Your task to perform on an android device: Add "corsair k70" to the cart on target Image 0: 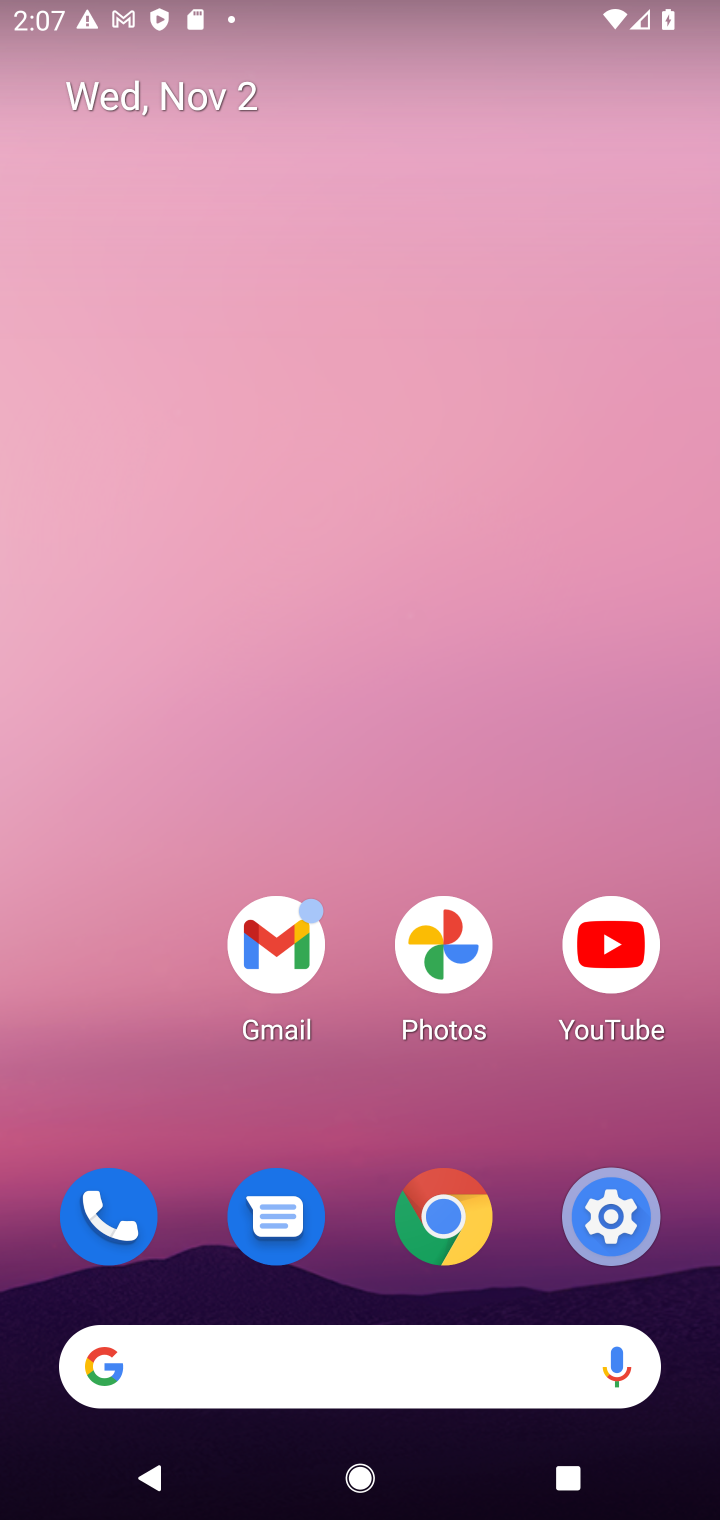
Step 0: click (416, 1201)
Your task to perform on an android device: Add "corsair k70" to the cart on target Image 1: 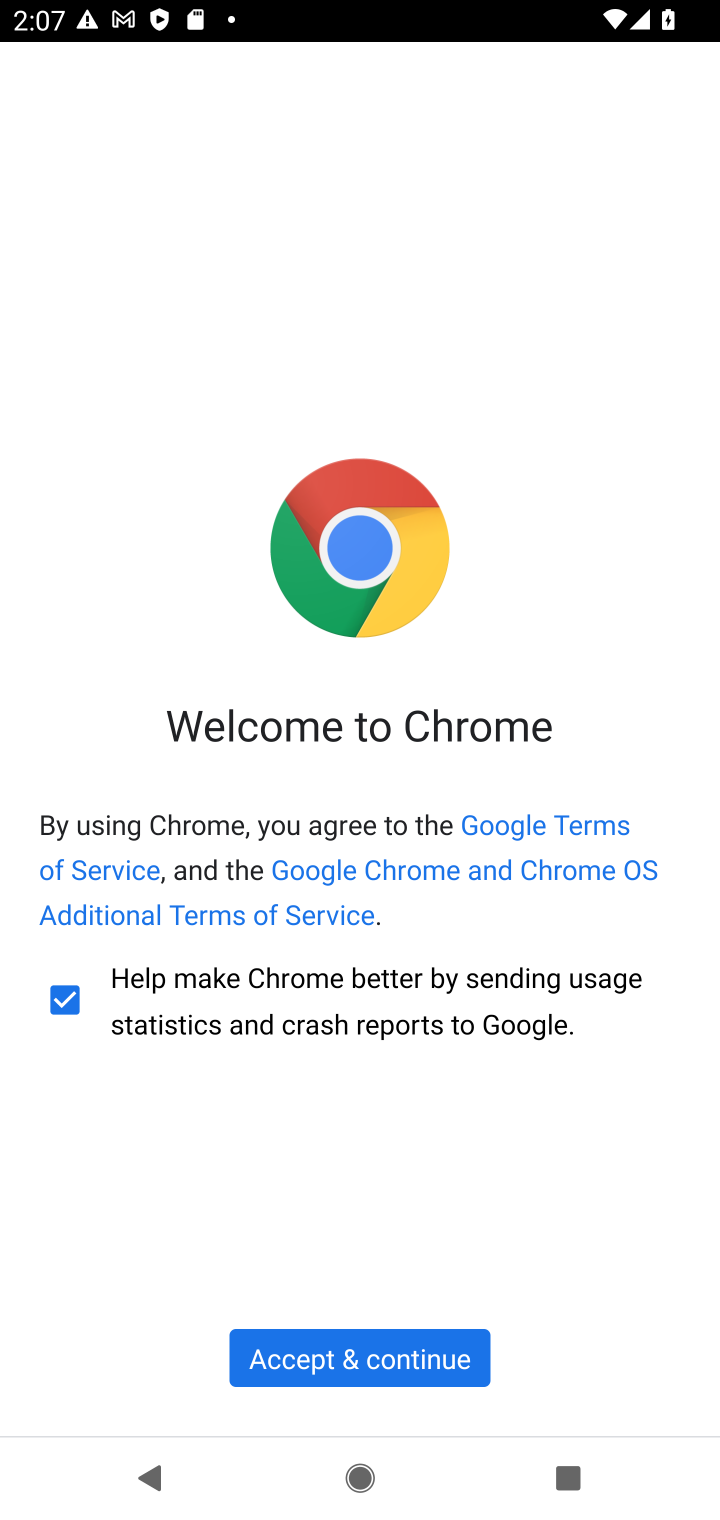
Step 1: click (335, 1345)
Your task to perform on an android device: Add "corsair k70" to the cart on target Image 2: 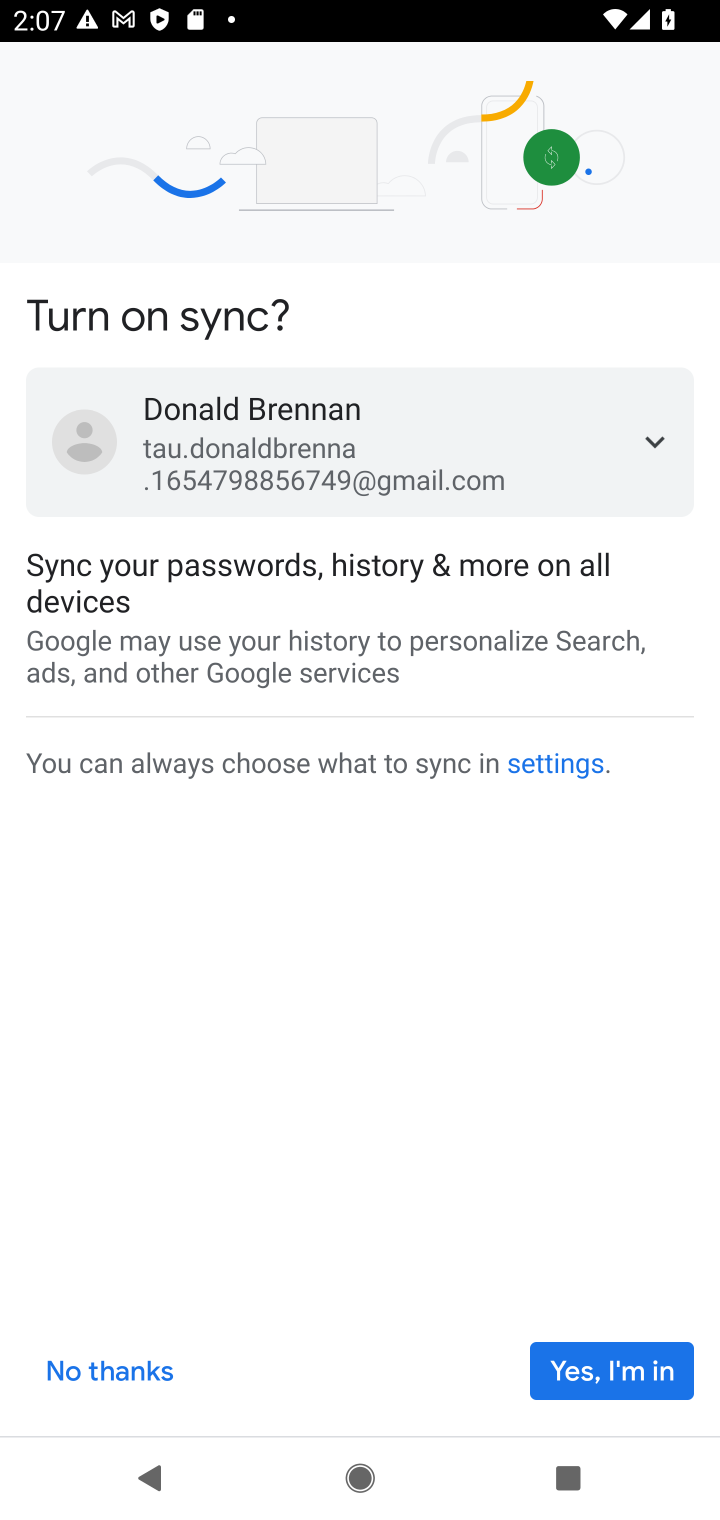
Step 2: click (592, 1369)
Your task to perform on an android device: Add "corsair k70" to the cart on target Image 3: 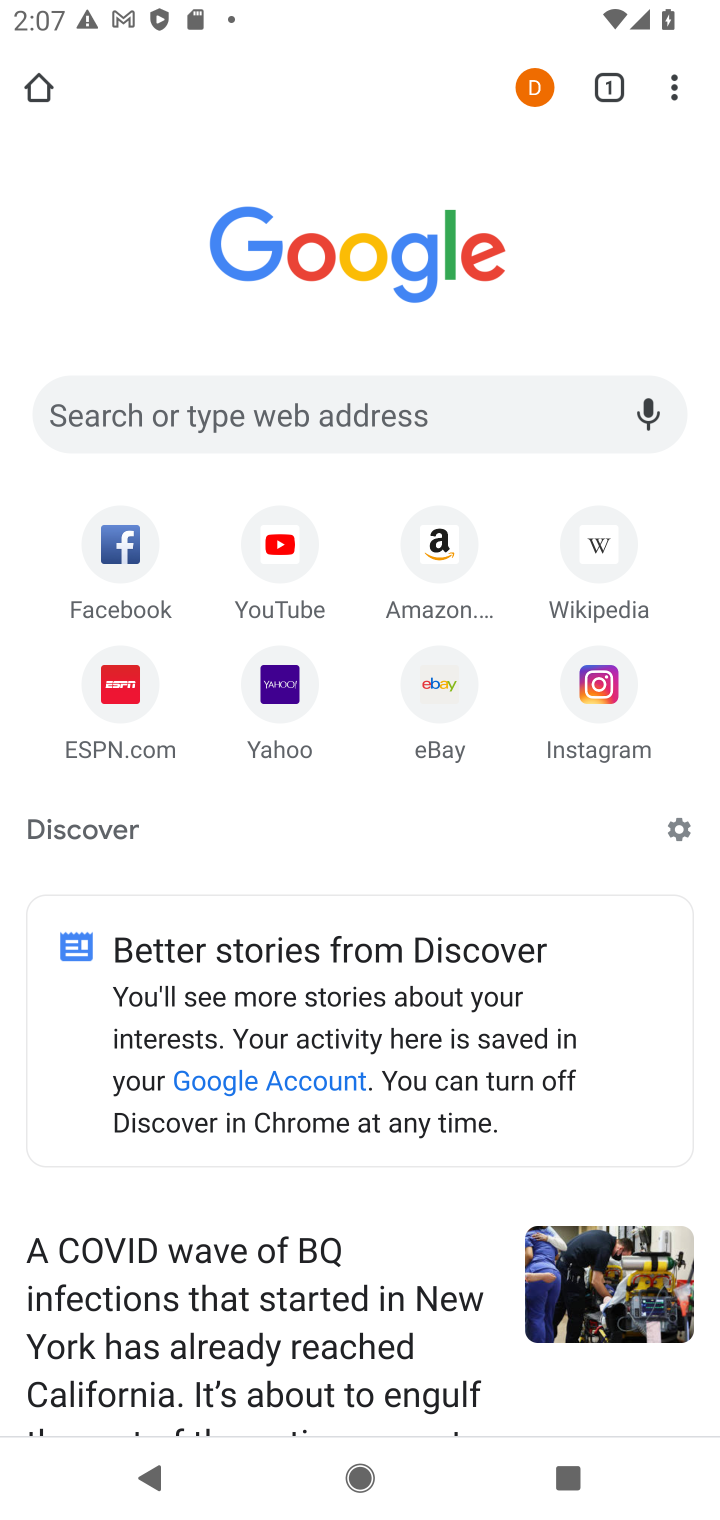
Step 3: click (253, 406)
Your task to perform on an android device: Add "corsair k70" to the cart on target Image 4: 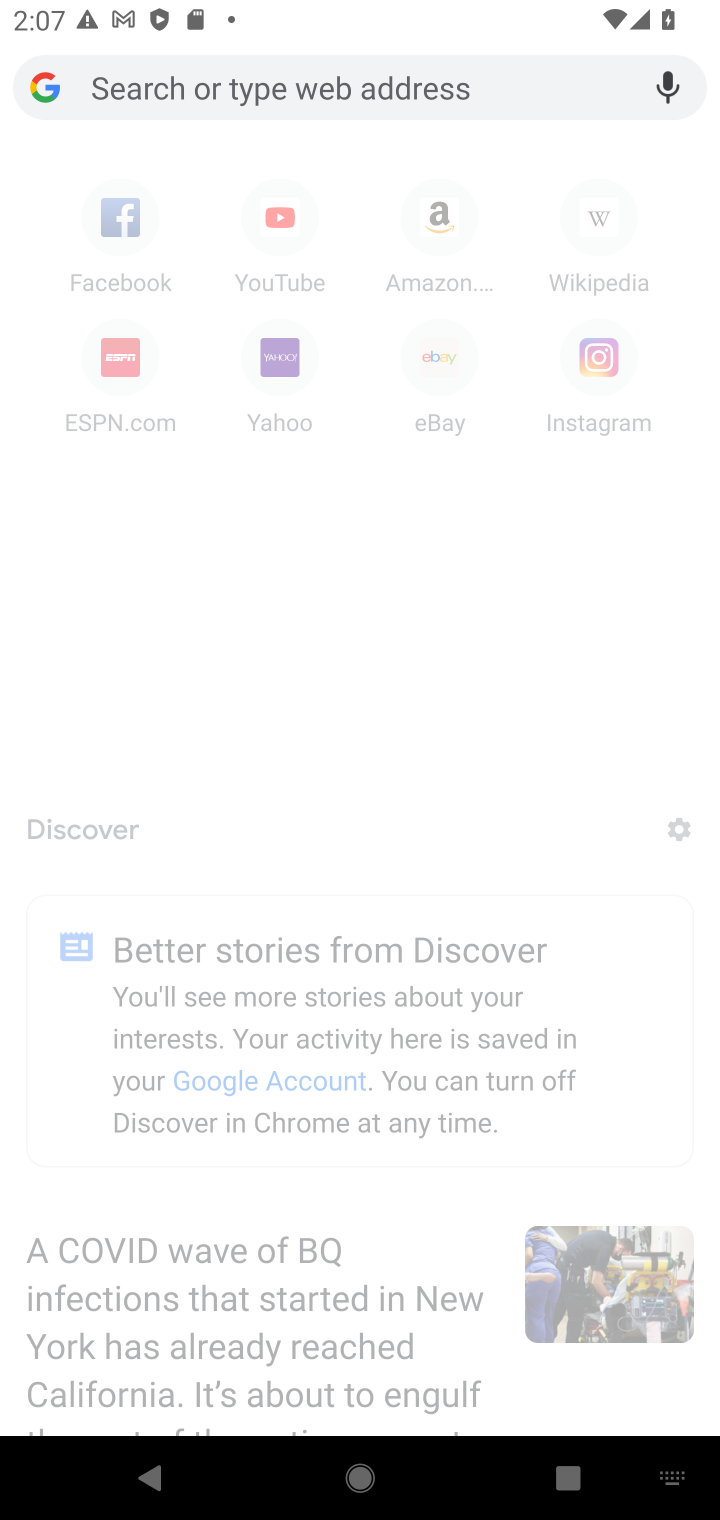
Step 4: type "target"
Your task to perform on an android device: Add "corsair k70" to the cart on target Image 5: 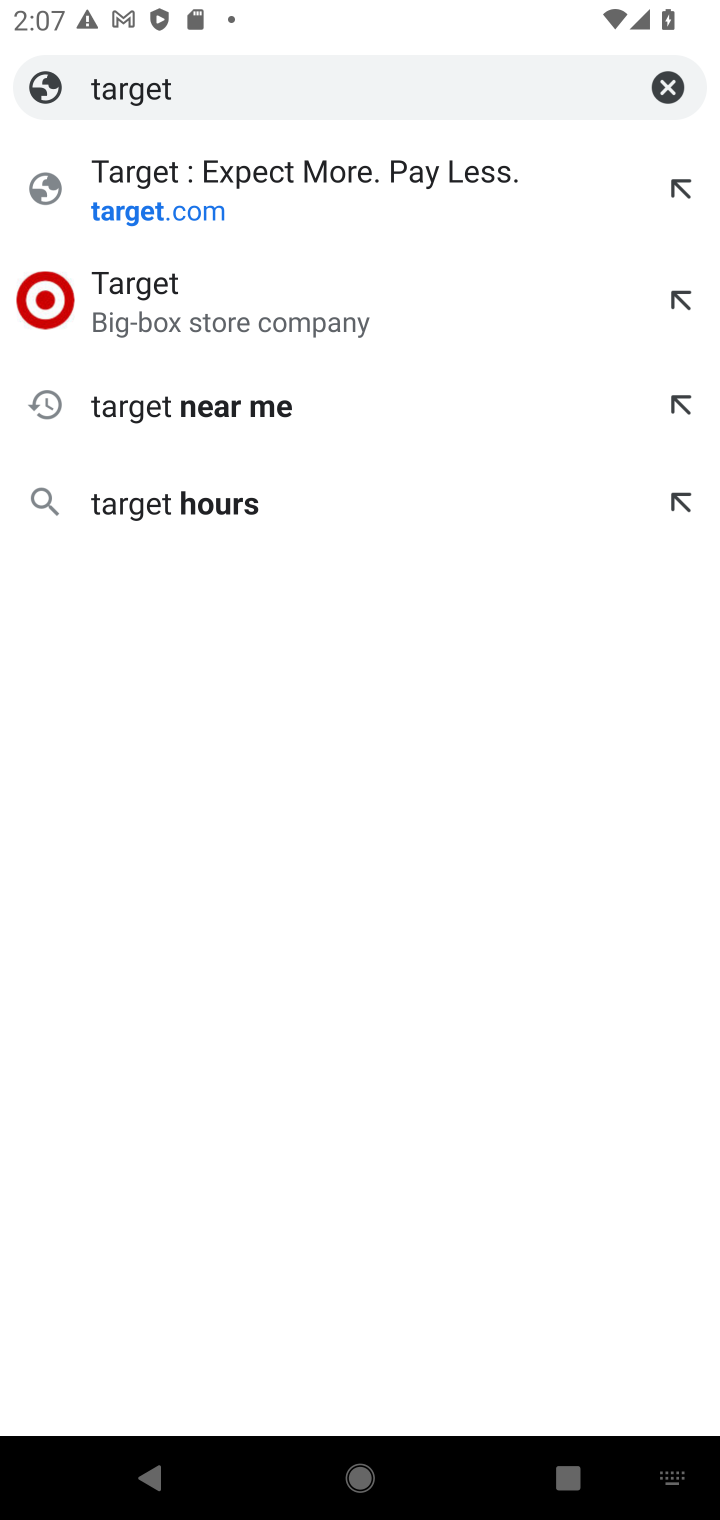
Step 5: click (160, 295)
Your task to perform on an android device: Add "corsair k70" to the cart on target Image 6: 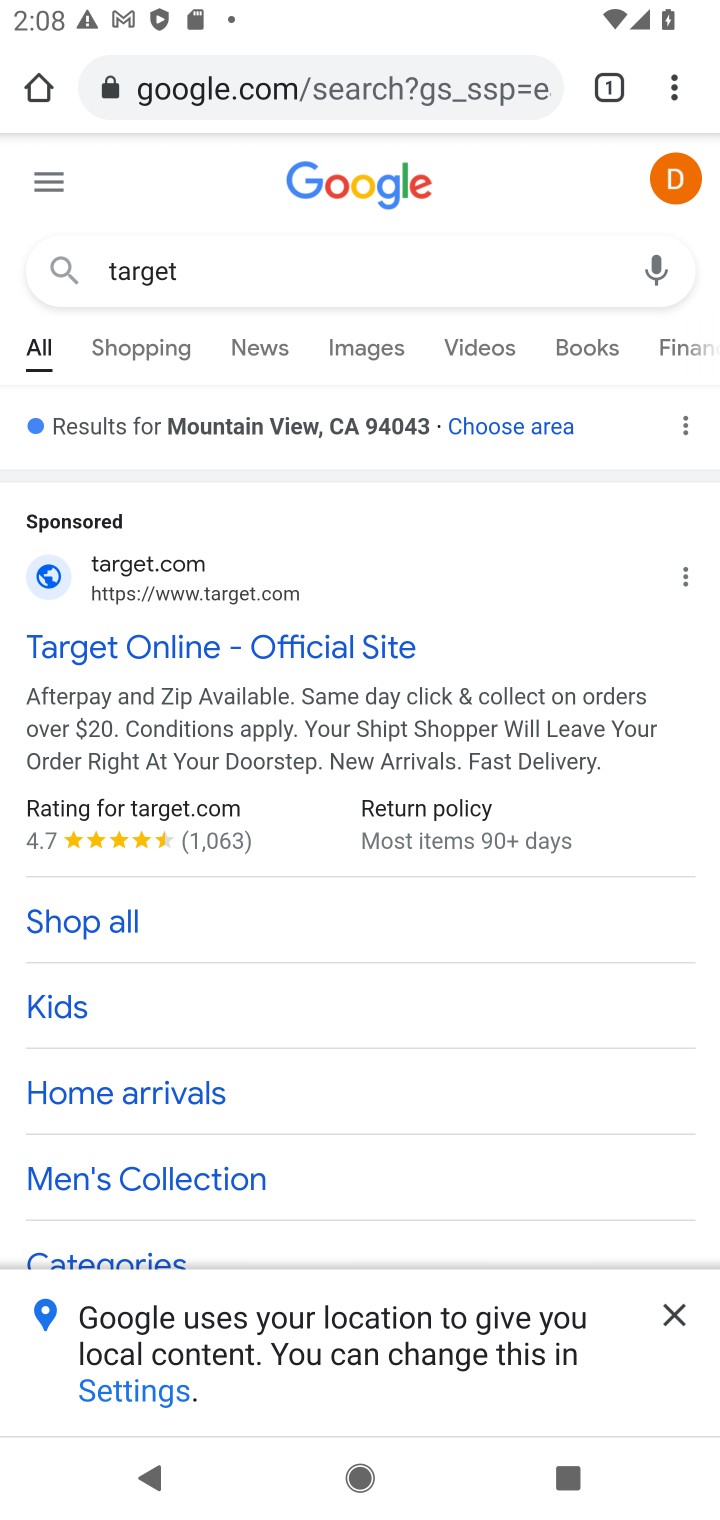
Step 6: click (673, 1301)
Your task to perform on an android device: Add "corsair k70" to the cart on target Image 7: 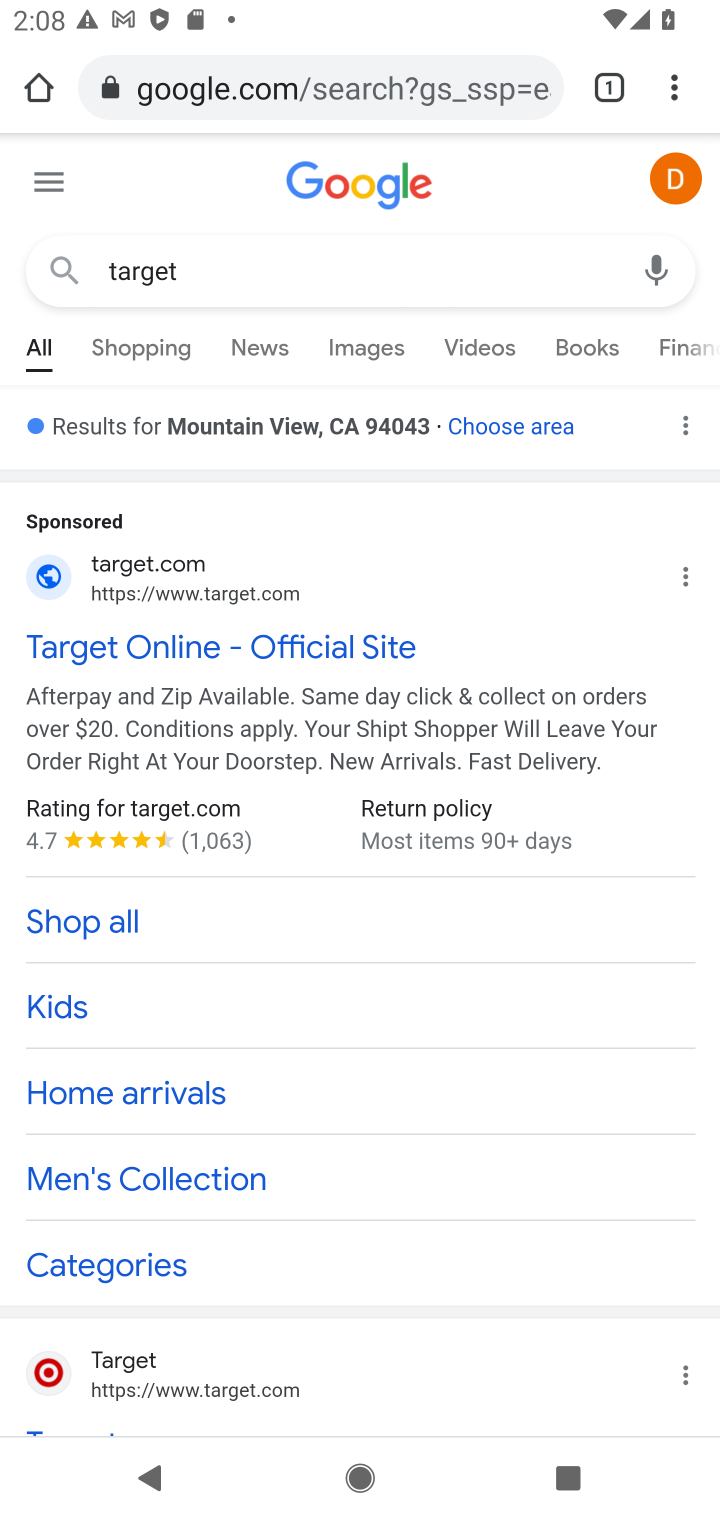
Step 7: drag from (382, 1101) to (465, 529)
Your task to perform on an android device: Add "corsair k70" to the cart on target Image 8: 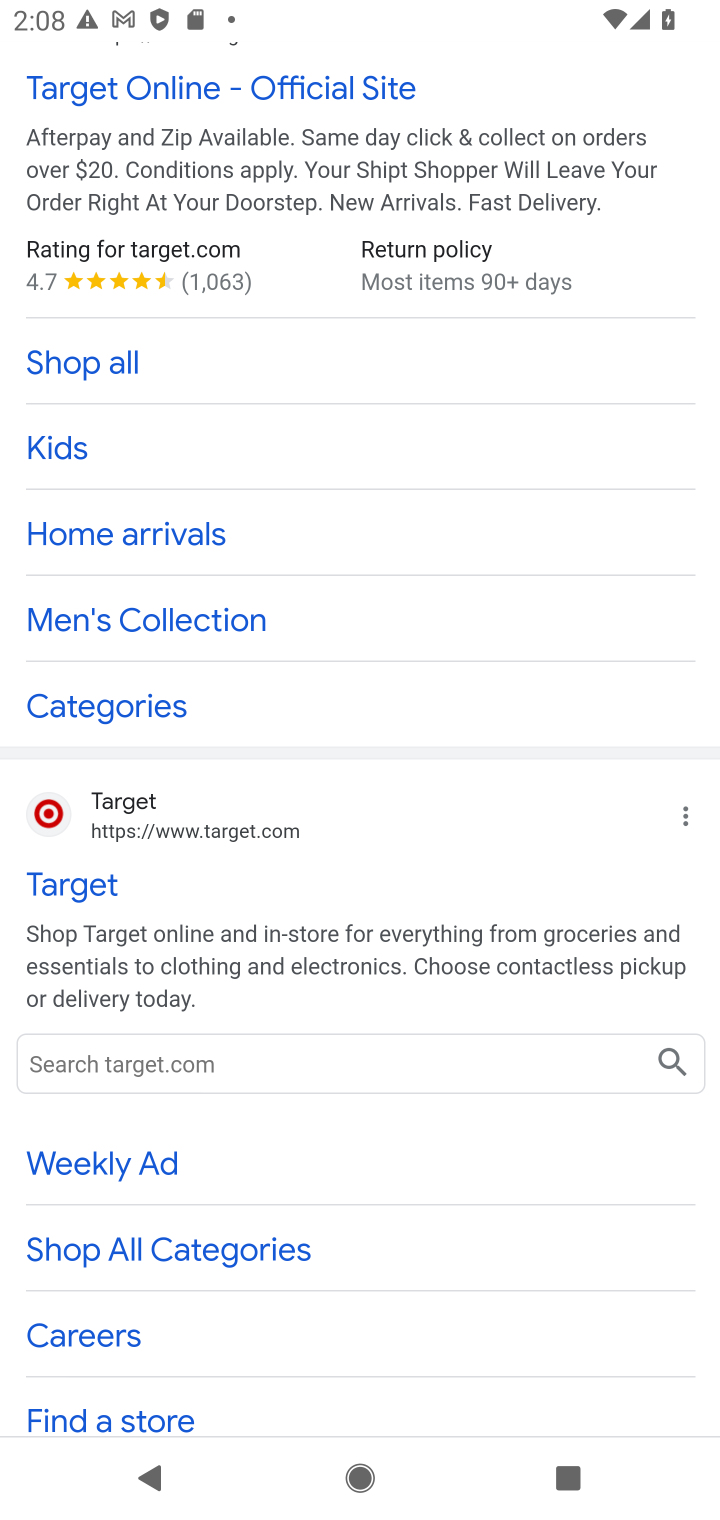
Step 8: click (168, 1057)
Your task to perform on an android device: Add "corsair k70" to the cart on target Image 9: 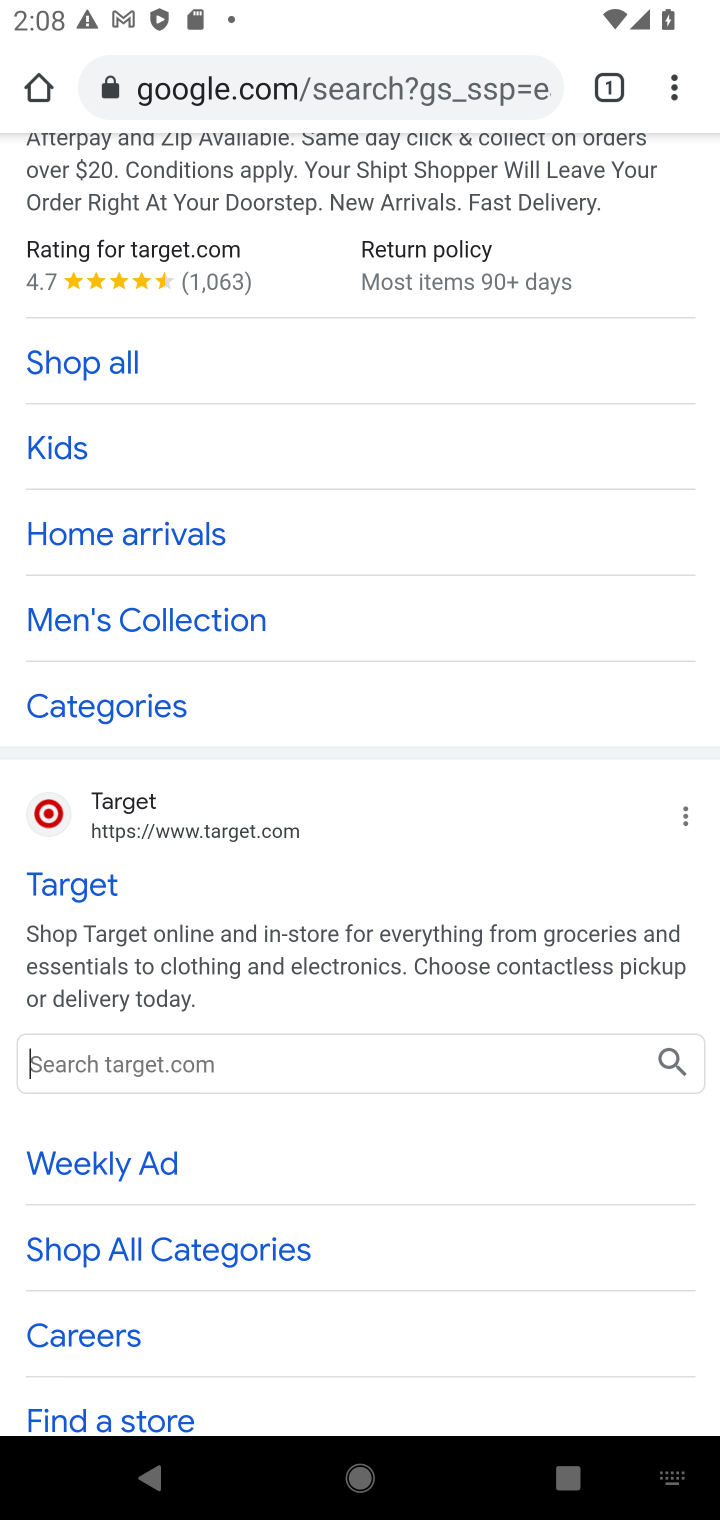
Step 9: type "corsair k70"
Your task to perform on an android device: Add "corsair k70" to the cart on target Image 10: 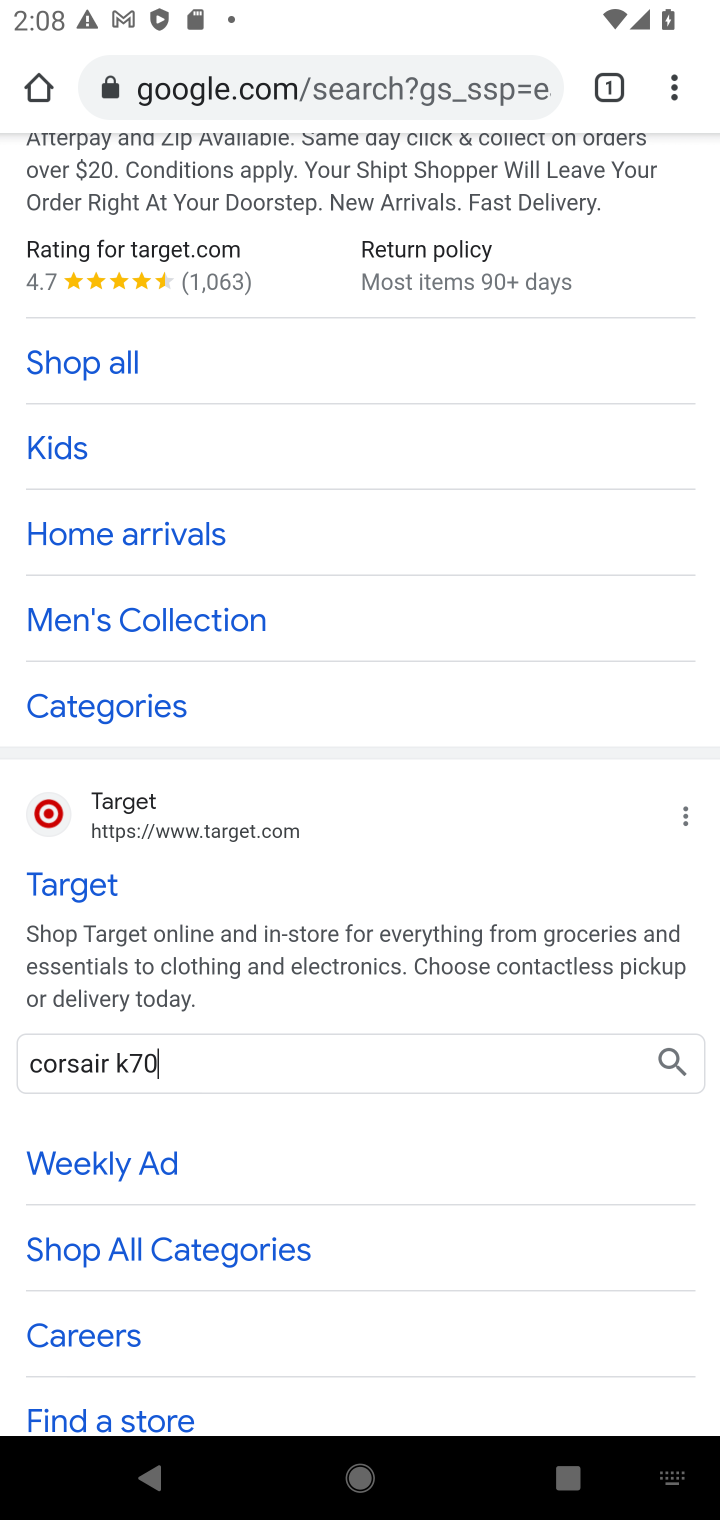
Step 10: click (674, 1056)
Your task to perform on an android device: Add "corsair k70" to the cart on target Image 11: 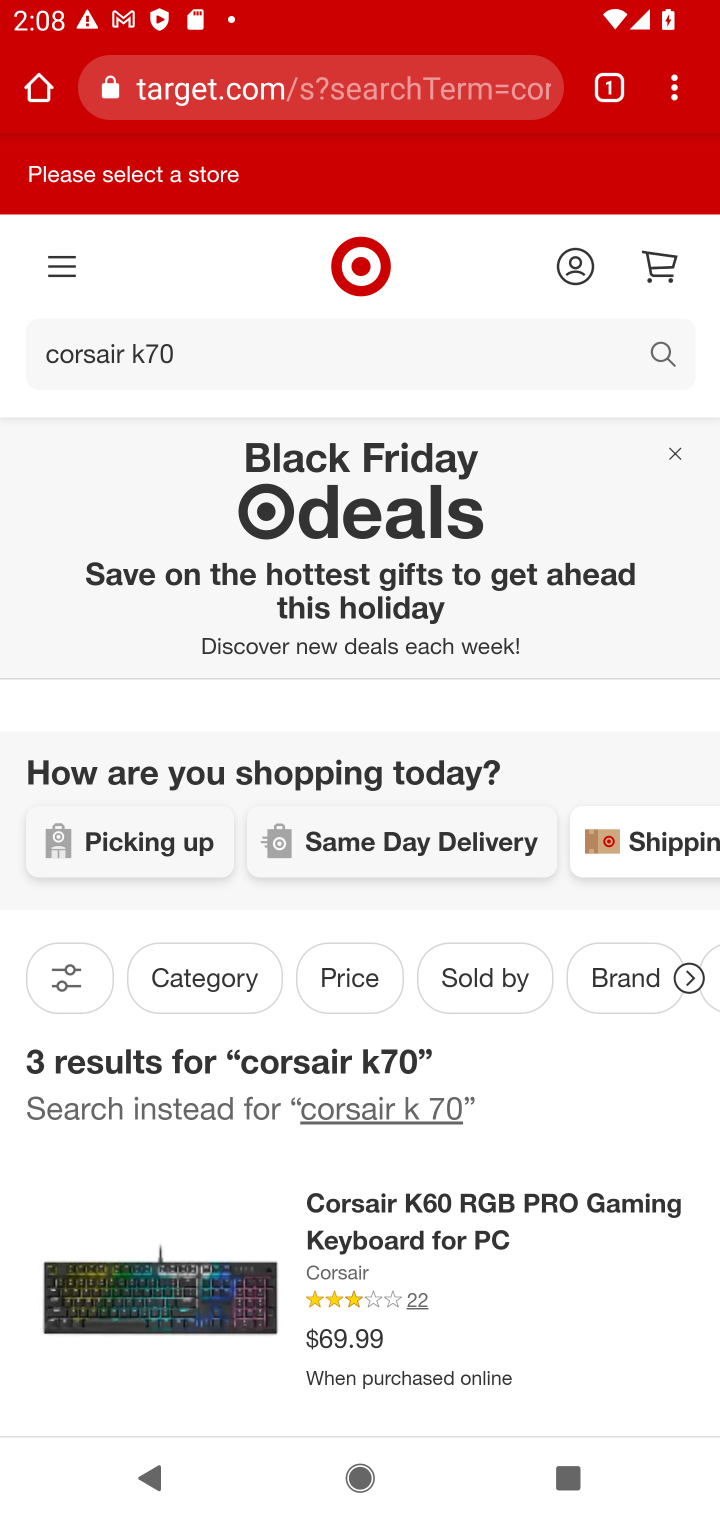
Step 11: drag from (541, 1396) to (400, 808)
Your task to perform on an android device: Add "corsair k70" to the cart on target Image 12: 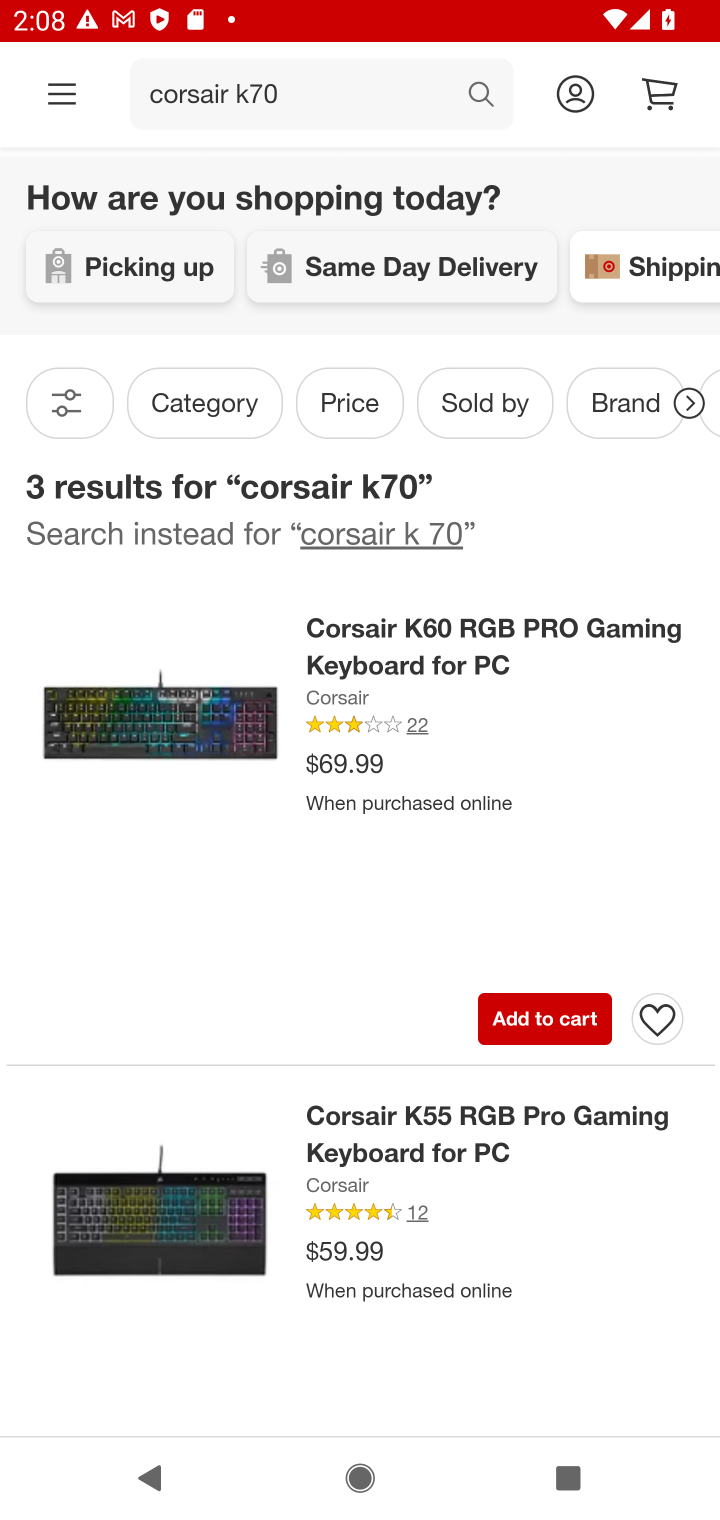
Step 12: click (406, 541)
Your task to perform on an android device: Add "corsair k70" to the cart on target Image 13: 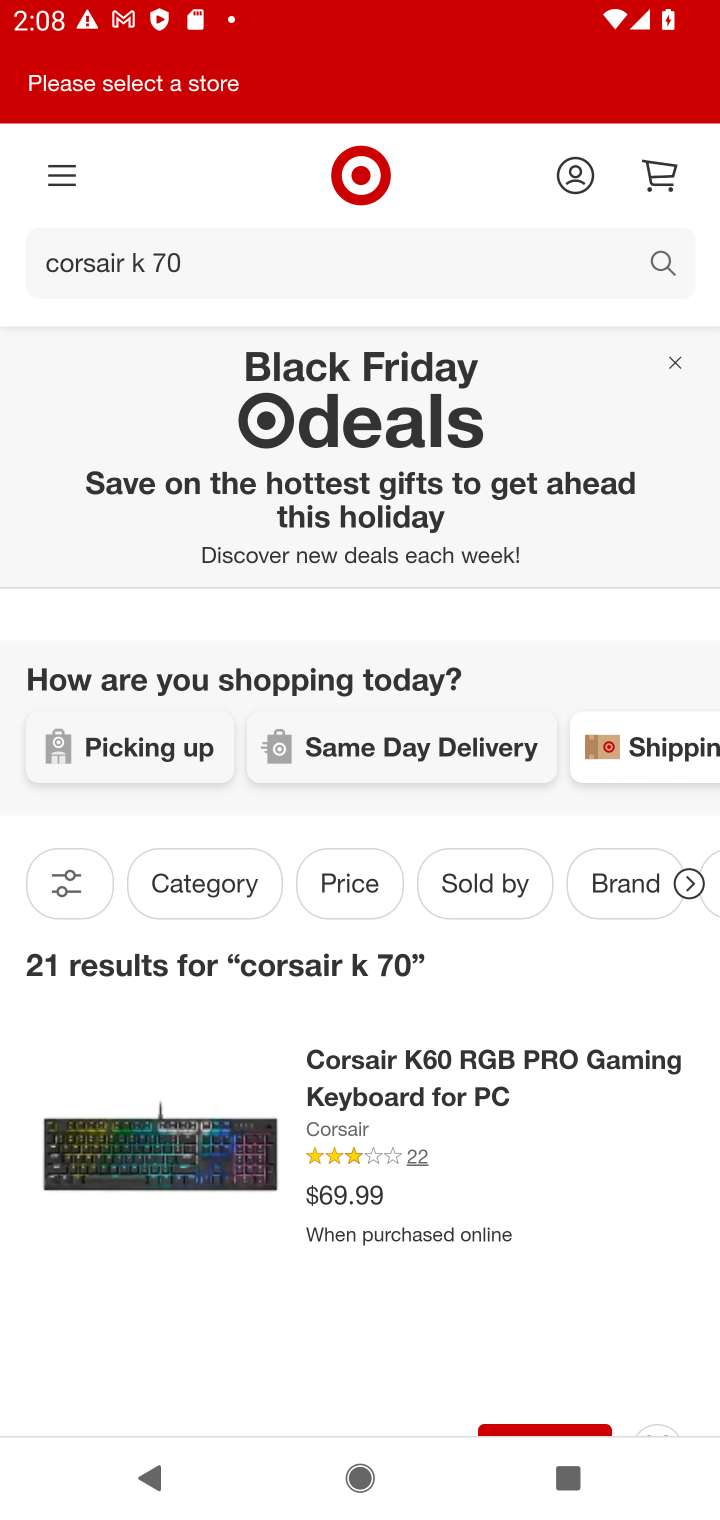
Step 13: drag from (434, 1205) to (443, 480)
Your task to perform on an android device: Add "corsair k70" to the cart on target Image 14: 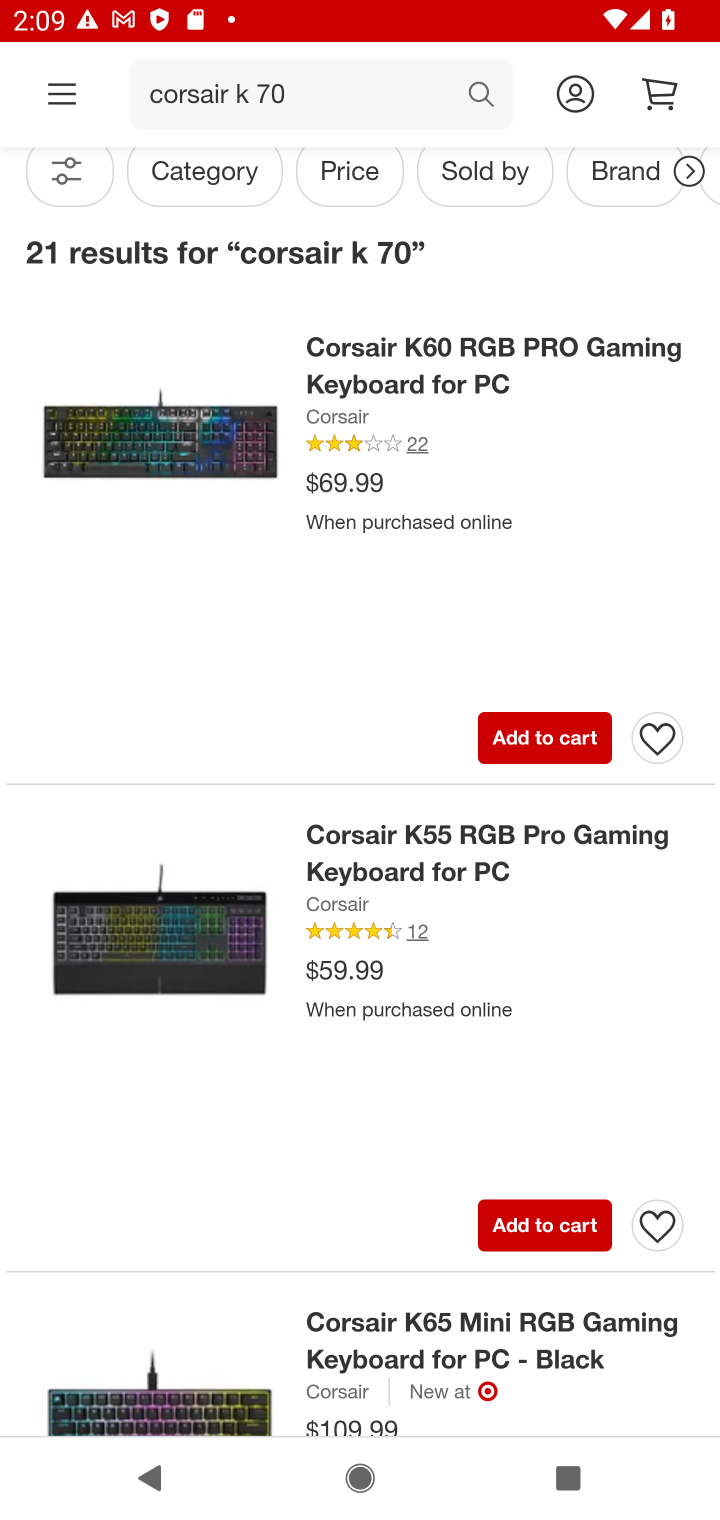
Step 14: click (537, 727)
Your task to perform on an android device: Add "corsair k70" to the cart on target Image 15: 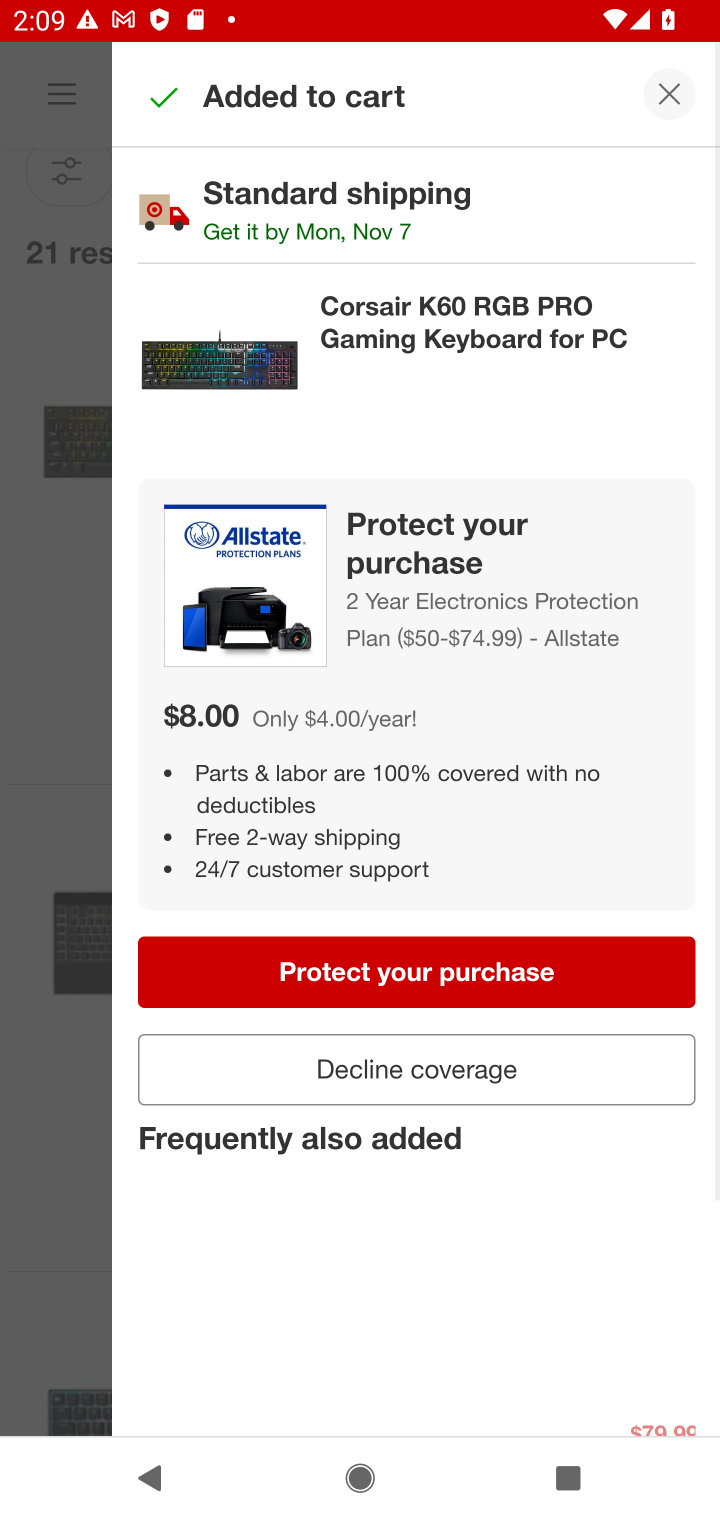
Step 15: task complete